Your task to perform on an android device: toggle airplane mode Image 0: 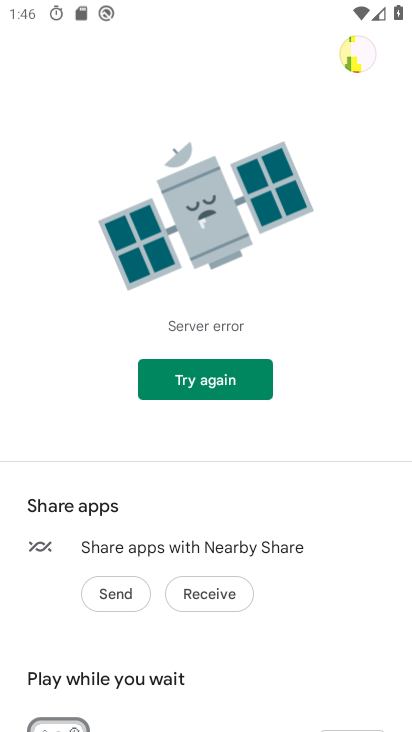
Step 0: press home button
Your task to perform on an android device: toggle airplane mode Image 1: 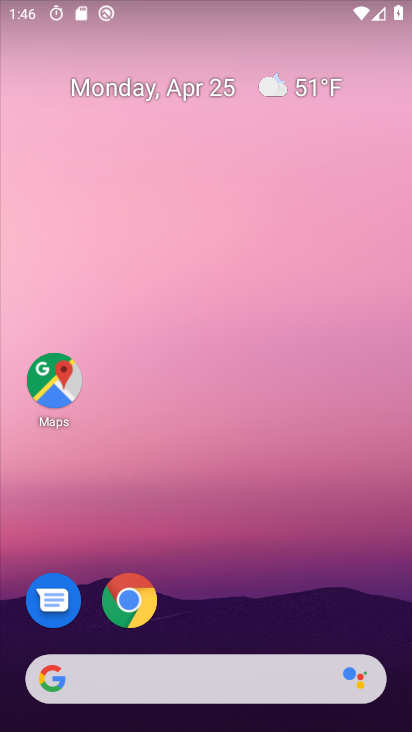
Step 1: drag from (201, 630) to (293, 151)
Your task to perform on an android device: toggle airplane mode Image 2: 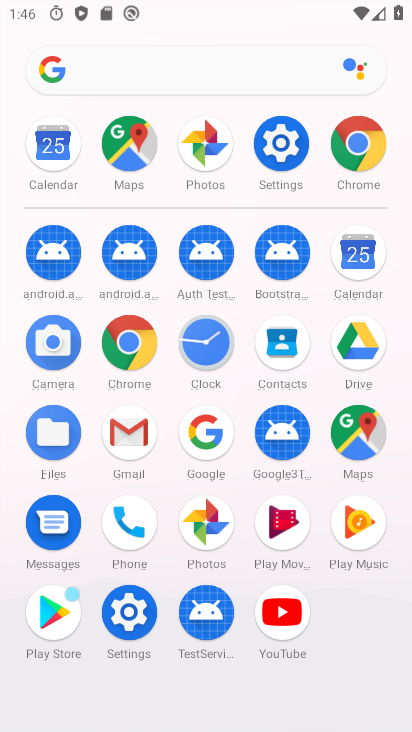
Step 2: click (286, 157)
Your task to perform on an android device: toggle airplane mode Image 3: 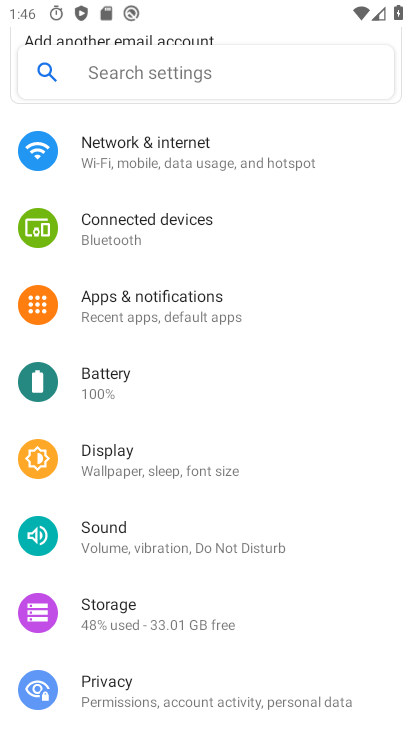
Step 3: click (160, 149)
Your task to perform on an android device: toggle airplane mode Image 4: 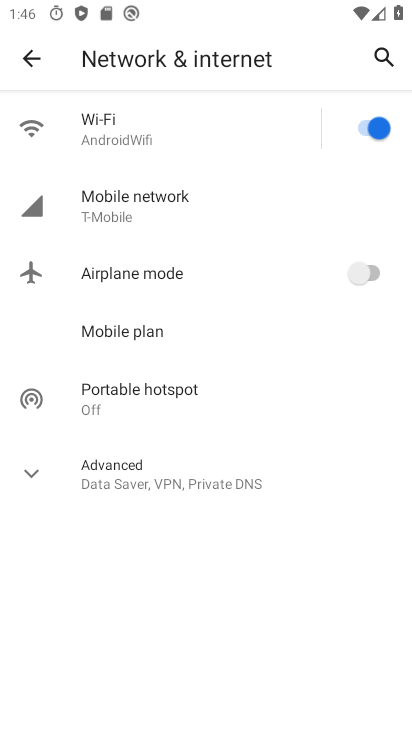
Step 4: click (374, 272)
Your task to perform on an android device: toggle airplane mode Image 5: 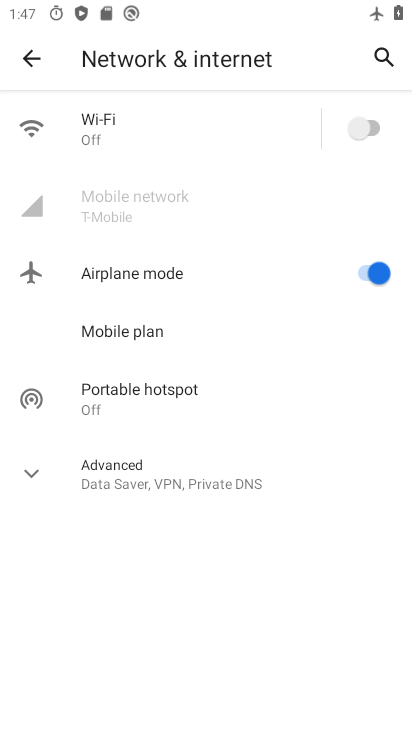
Step 5: task complete